Your task to perform on an android device: turn on translation in the chrome app Image 0: 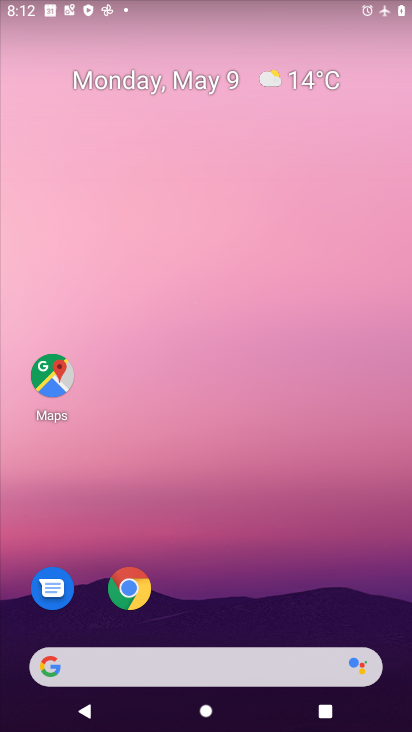
Step 0: drag from (332, 602) to (225, 59)
Your task to perform on an android device: turn on translation in the chrome app Image 1: 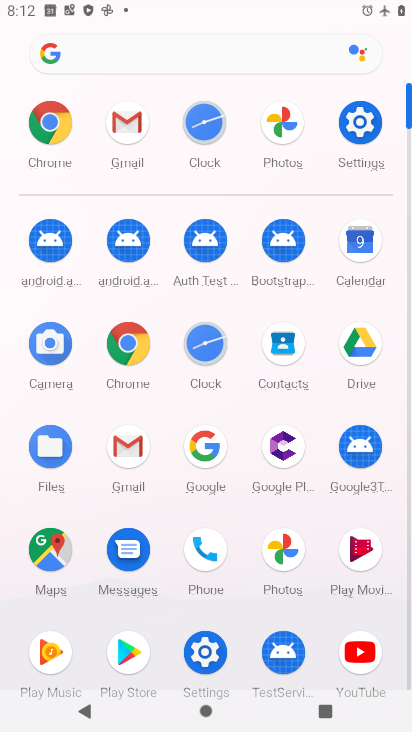
Step 1: click (136, 345)
Your task to perform on an android device: turn on translation in the chrome app Image 2: 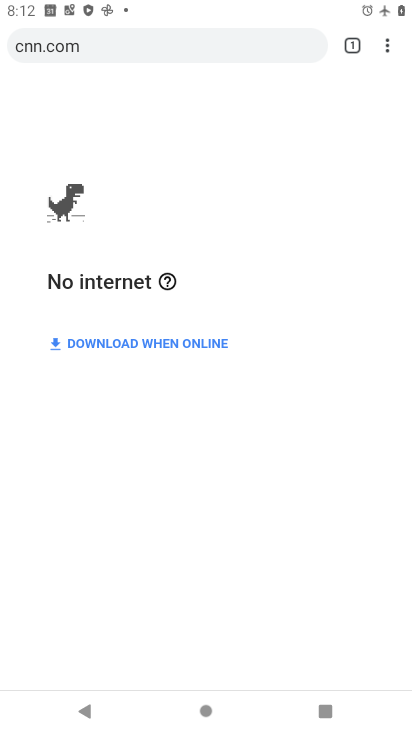
Step 2: click (385, 46)
Your task to perform on an android device: turn on translation in the chrome app Image 3: 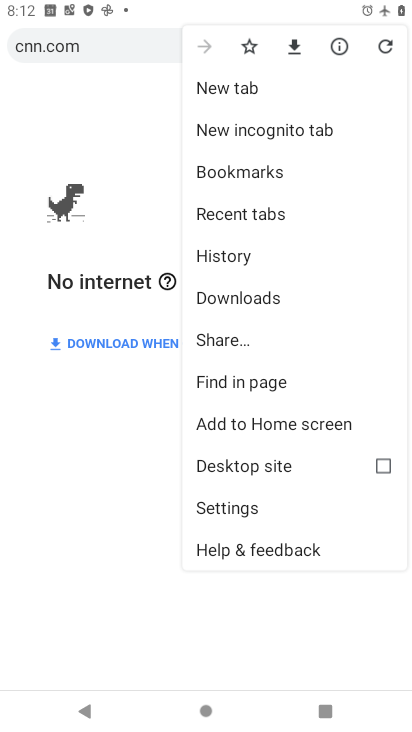
Step 3: click (252, 509)
Your task to perform on an android device: turn on translation in the chrome app Image 4: 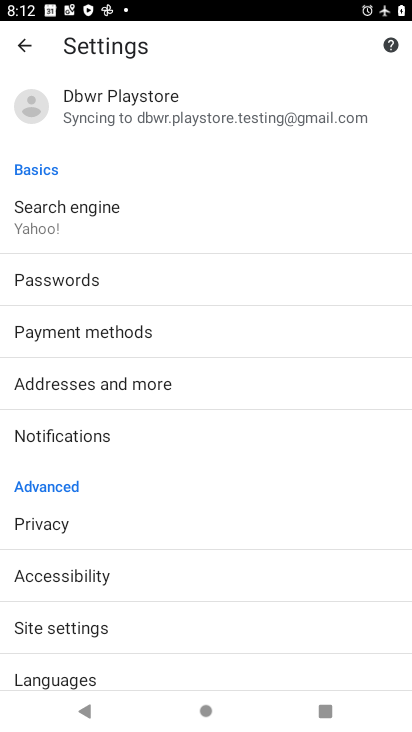
Step 4: click (122, 681)
Your task to perform on an android device: turn on translation in the chrome app Image 5: 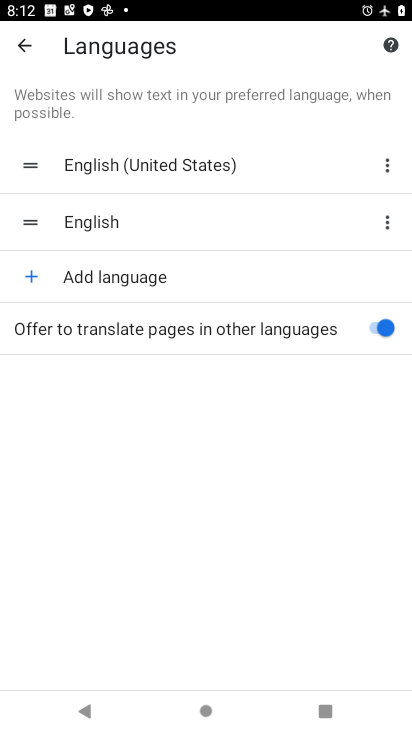
Step 5: task complete